Your task to perform on an android device: turn off wifi Image 0: 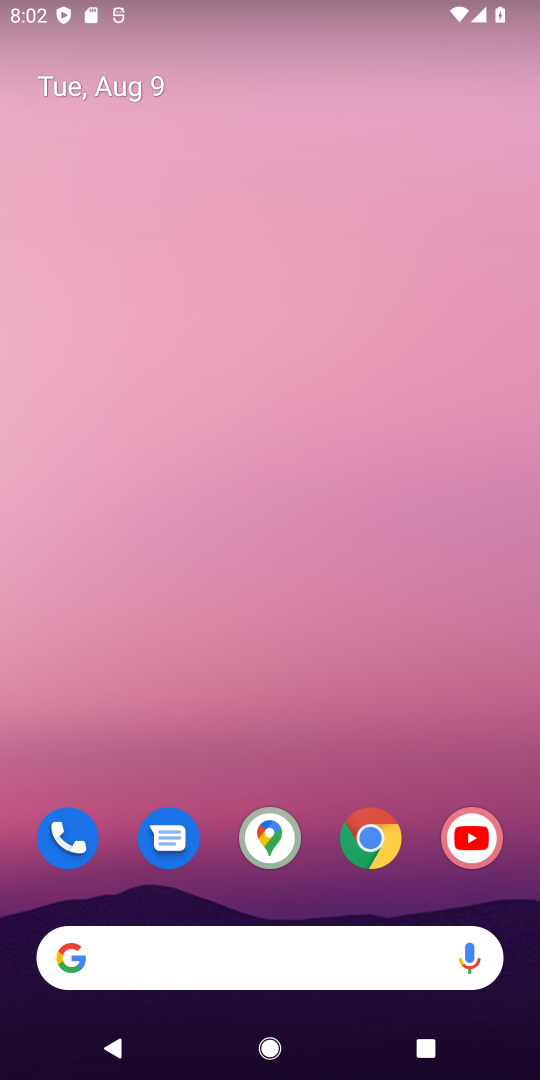
Step 0: drag from (246, 995) to (356, 175)
Your task to perform on an android device: turn off wifi Image 1: 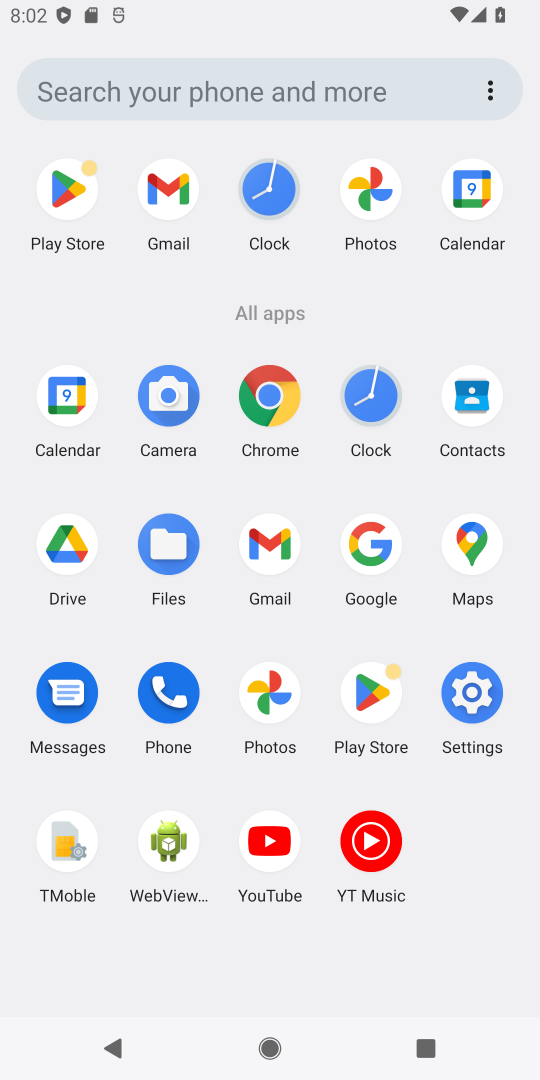
Step 1: click (478, 687)
Your task to perform on an android device: turn off wifi Image 2: 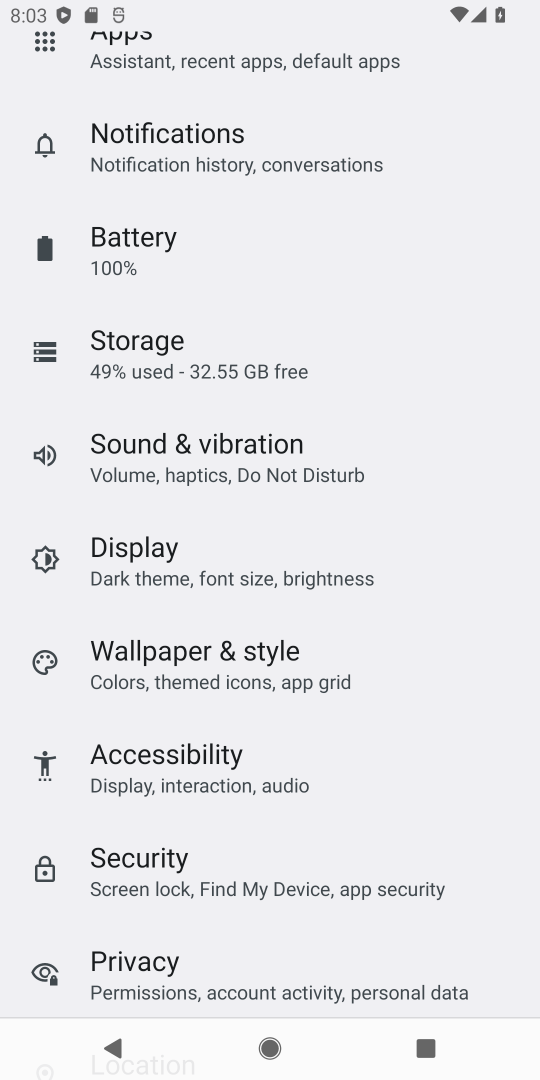
Step 2: drag from (263, 136) to (231, 963)
Your task to perform on an android device: turn off wifi Image 3: 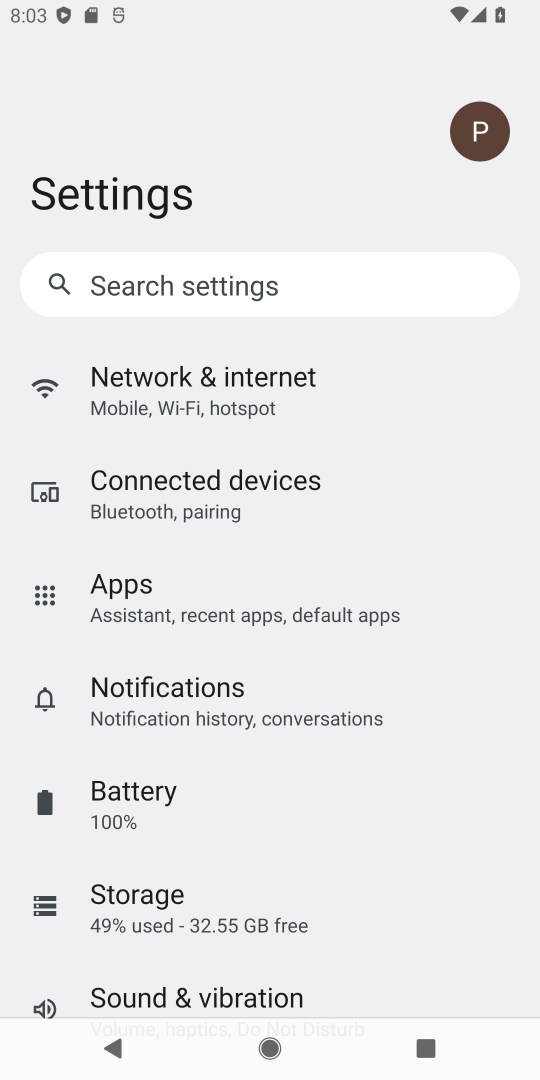
Step 3: click (184, 381)
Your task to perform on an android device: turn off wifi Image 4: 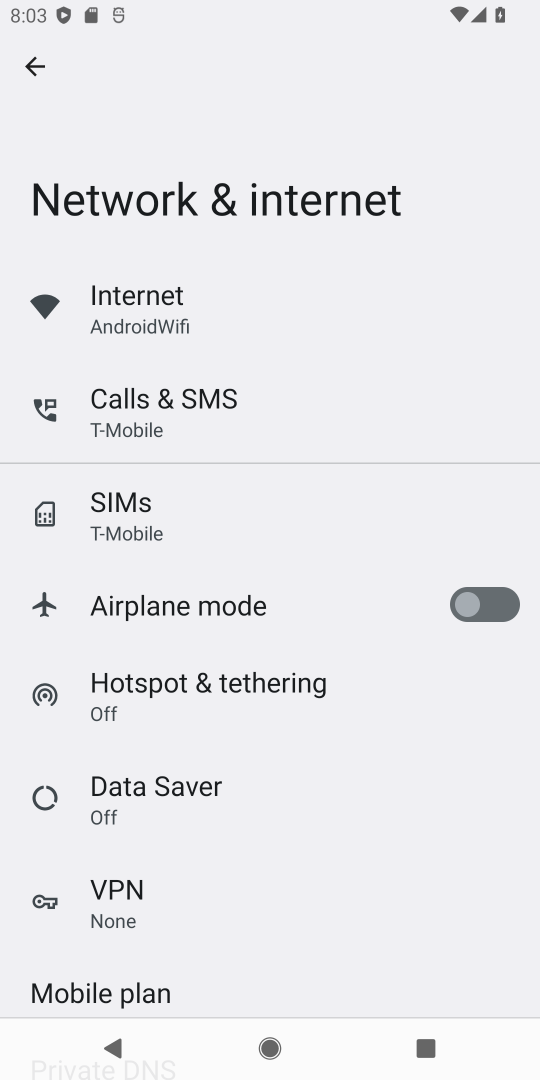
Step 4: click (196, 313)
Your task to perform on an android device: turn off wifi Image 5: 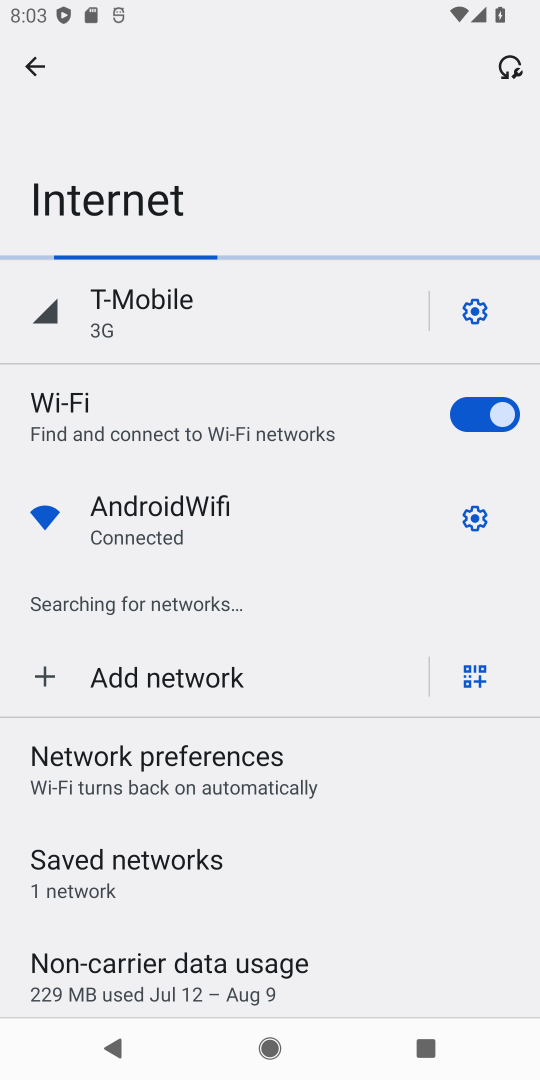
Step 5: click (481, 415)
Your task to perform on an android device: turn off wifi Image 6: 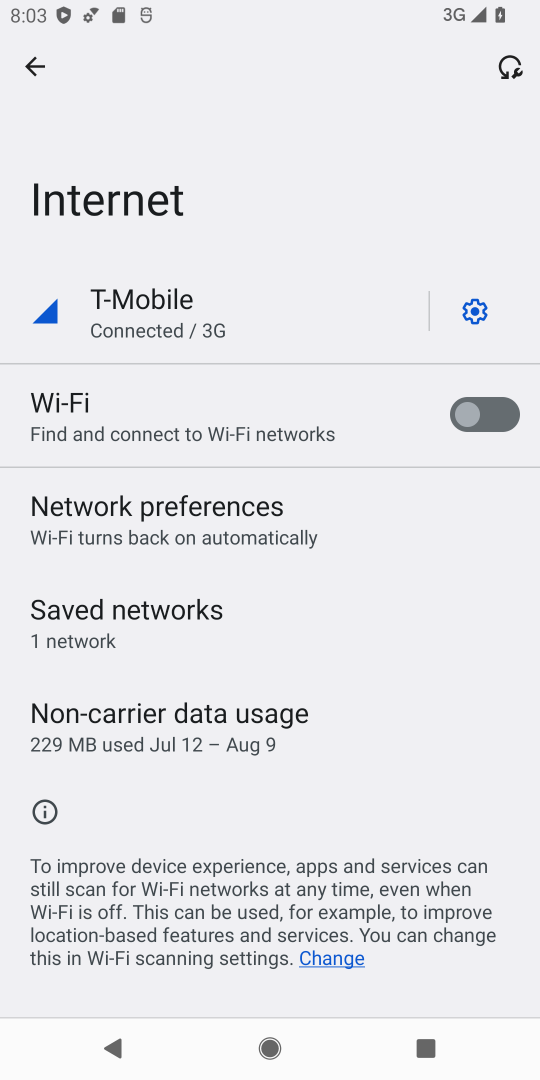
Step 6: task complete